Your task to perform on an android device: turn off priority inbox in the gmail app Image 0: 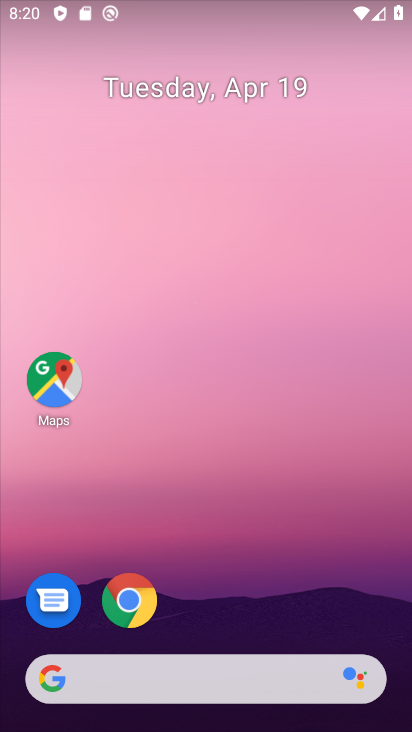
Step 0: drag from (368, 576) to (362, 111)
Your task to perform on an android device: turn off priority inbox in the gmail app Image 1: 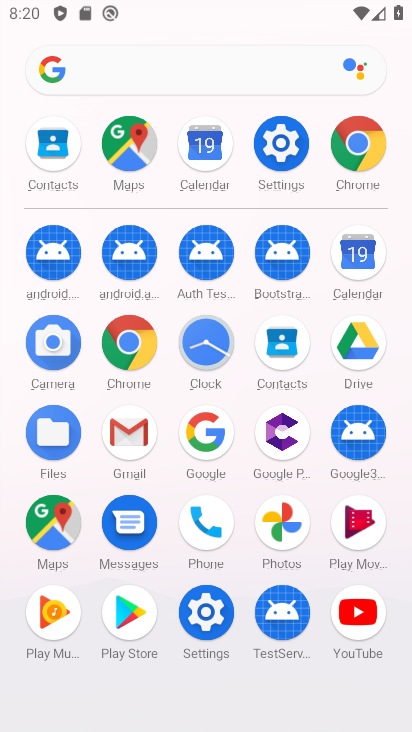
Step 1: click (131, 445)
Your task to perform on an android device: turn off priority inbox in the gmail app Image 2: 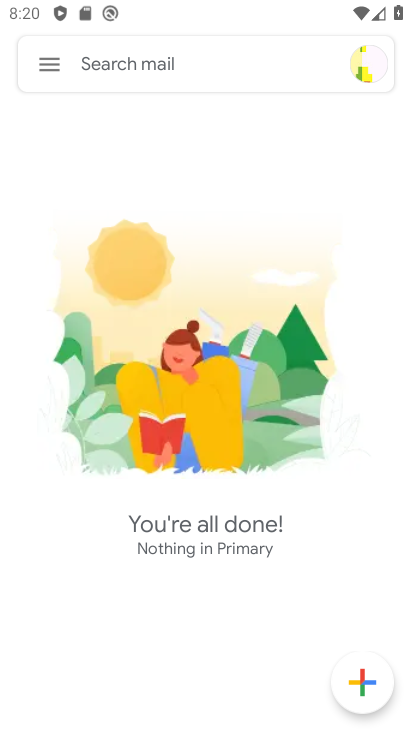
Step 2: click (52, 75)
Your task to perform on an android device: turn off priority inbox in the gmail app Image 3: 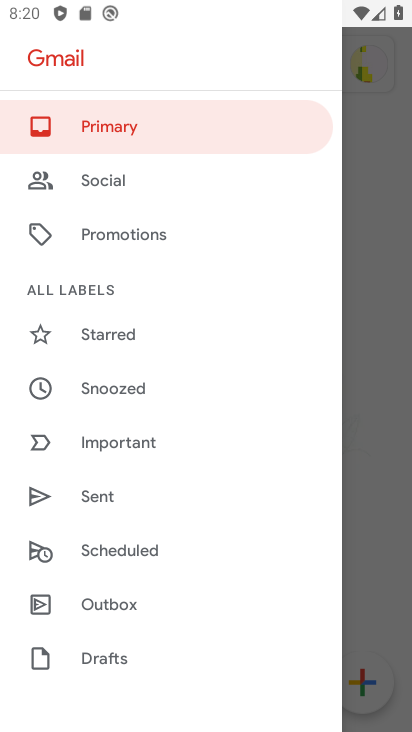
Step 3: drag from (272, 570) to (285, 232)
Your task to perform on an android device: turn off priority inbox in the gmail app Image 4: 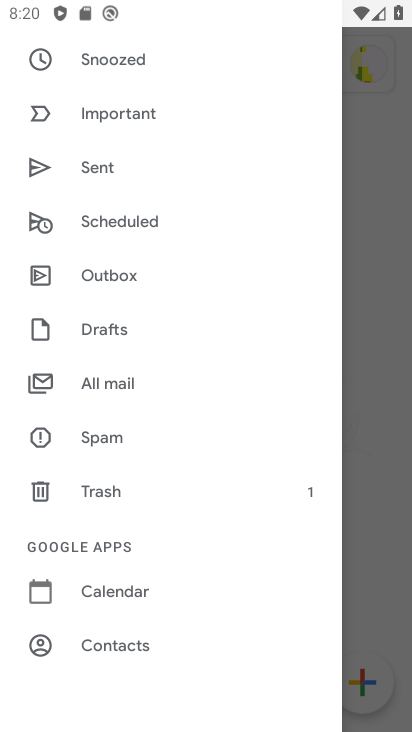
Step 4: drag from (251, 599) to (253, 311)
Your task to perform on an android device: turn off priority inbox in the gmail app Image 5: 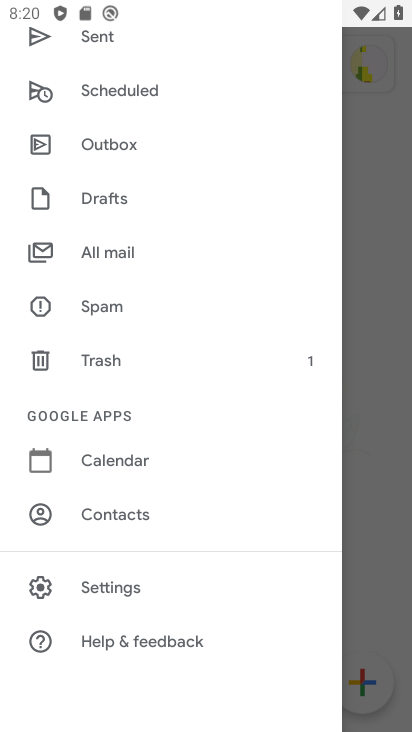
Step 5: click (110, 586)
Your task to perform on an android device: turn off priority inbox in the gmail app Image 6: 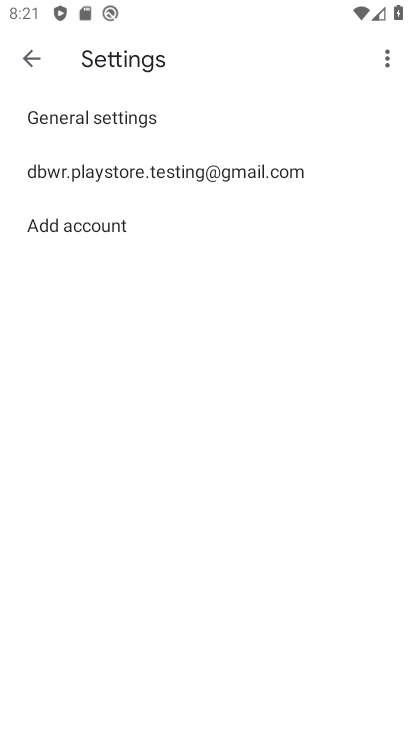
Step 6: click (199, 169)
Your task to perform on an android device: turn off priority inbox in the gmail app Image 7: 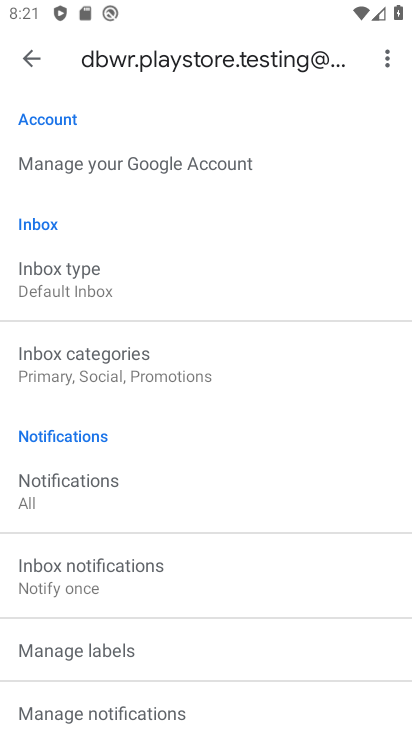
Step 7: drag from (294, 572) to (316, 305)
Your task to perform on an android device: turn off priority inbox in the gmail app Image 8: 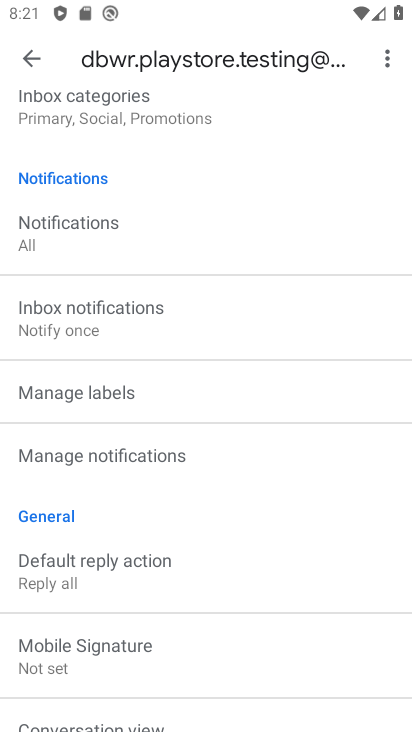
Step 8: drag from (305, 524) to (332, 283)
Your task to perform on an android device: turn off priority inbox in the gmail app Image 9: 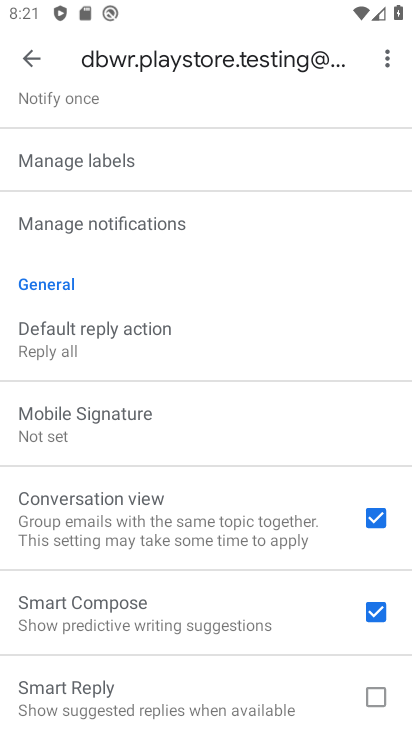
Step 9: drag from (305, 342) to (306, 577)
Your task to perform on an android device: turn off priority inbox in the gmail app Image 10: 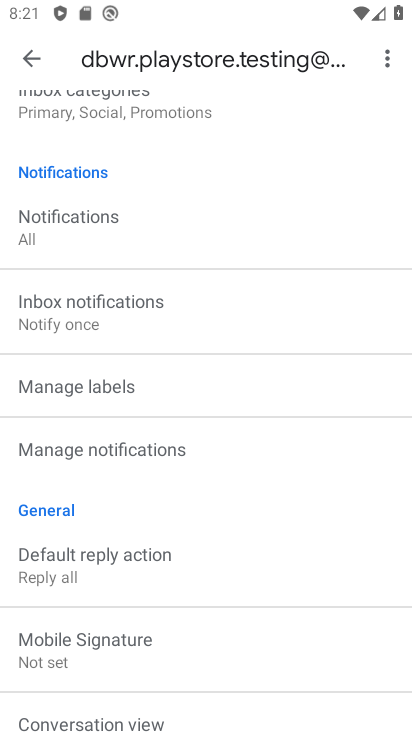
Step 10: drag from (319, 239) to (316, 532)
Your task to perform on an android device: turn off priority inbox in the gmail app Image 11: 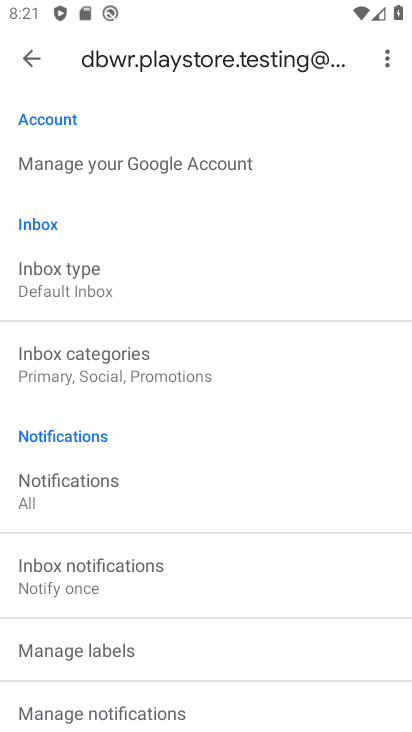
Step 11: click (92, 287)
Your task to perform on an android device: turn off priority inbox in the gmail app Image 12: 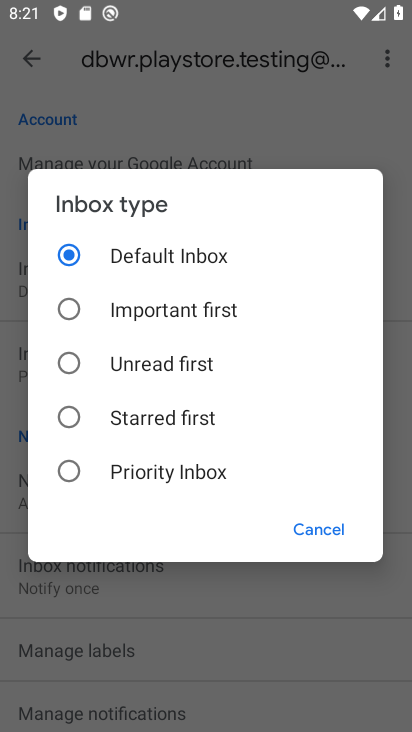
Step 12: task complete